Your task to perform on an android device: remove spam from my inbox in the gmail app Image 0: 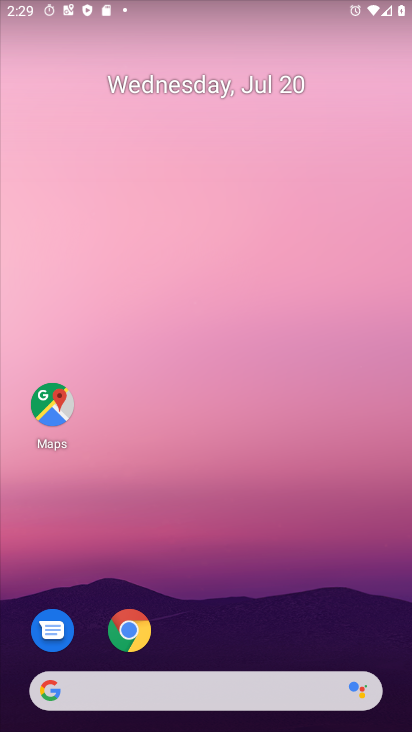
Step 0: press home button
Your task to perform on an android device: remove spam from my inbox in the gmail app Image 1: 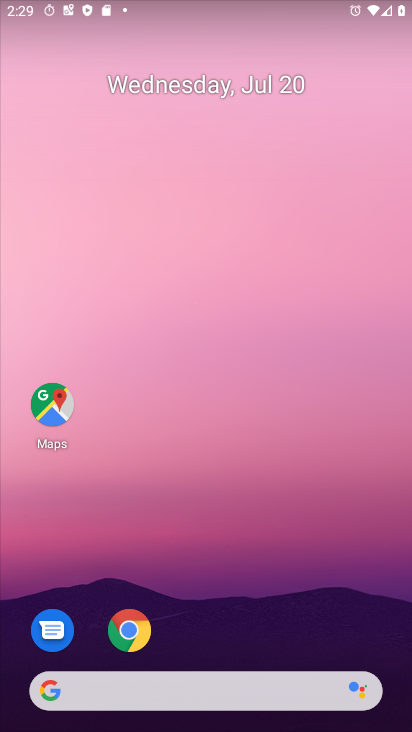
Step 1: drag from (183, 687) to (332, 131)
Your task to perform on an android device: remove spam from my inbox in the gmail app Image 2: 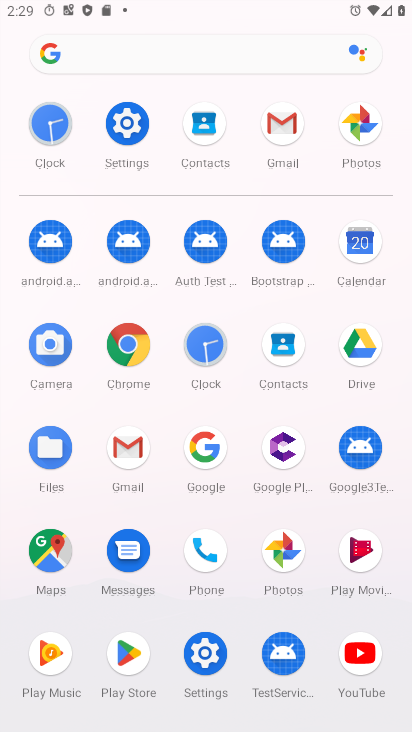
Step 2: click (285, 123)
Your task to perform on an android device: remove spam from my inbox in the gmail app Image 3: 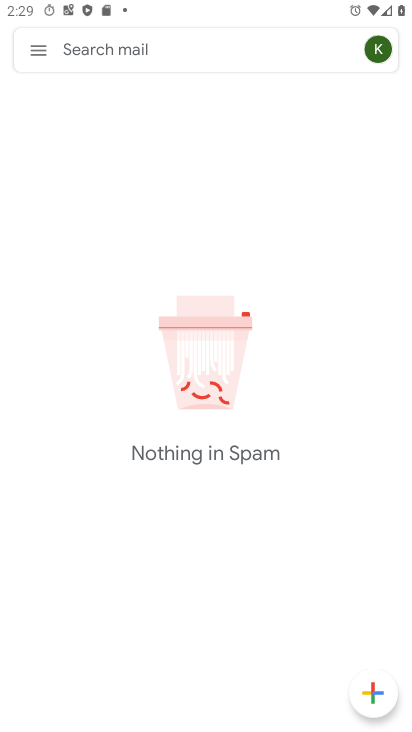
Step 3: task complete